Your task to perform on an android device: add a label to a message in the gmail app Image 0: 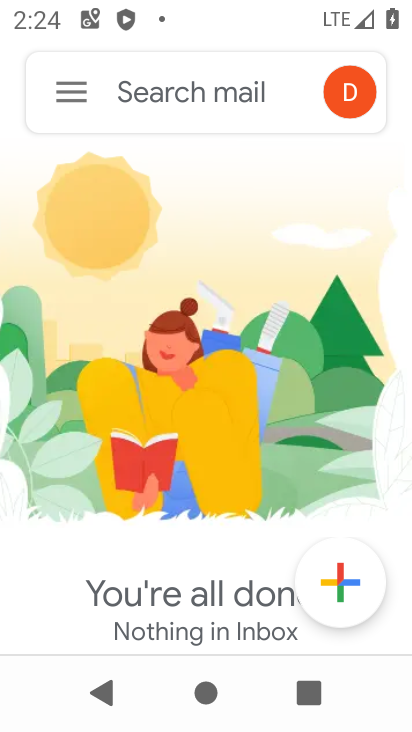
Step 0: click (62, 93)
Your task to perform on an android device: add a label to a message in the gmail app Image 1: 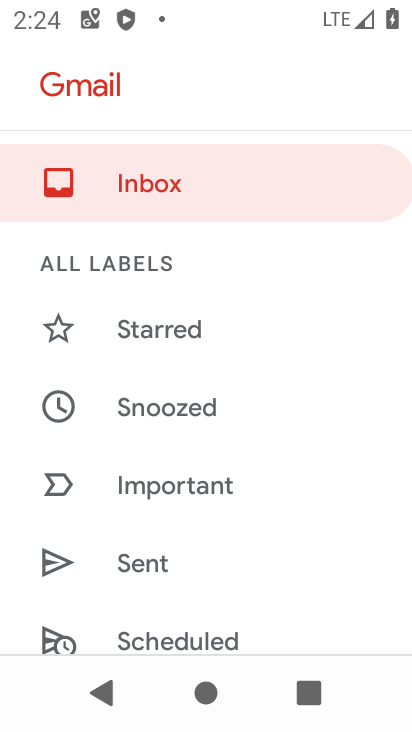
Step 1: click (73, 193)
Your task to perform on an android device: add a label to a message in the gmail app Image 2: 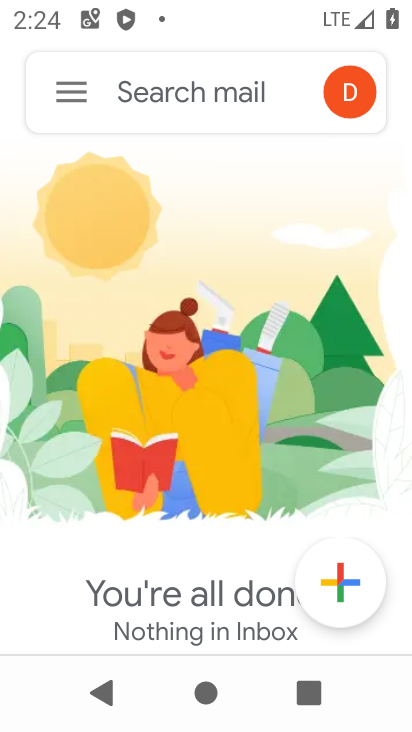
Step 2: task complete